Your task to perform on an android device: check android version Image 0: 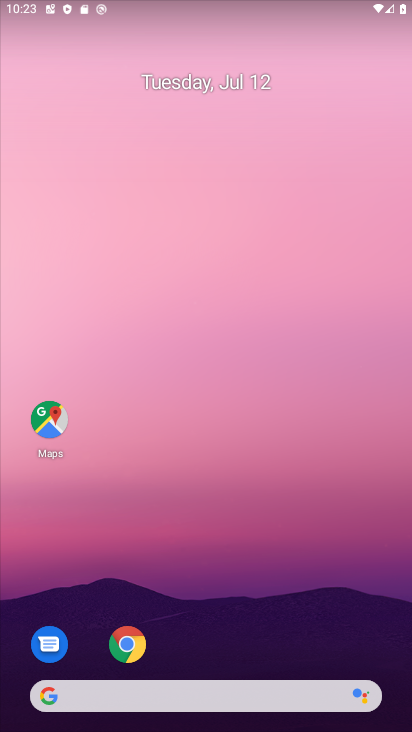
Step 0: drag from (173, 435) to (401, 13)
Your task to perform on an android device: check android version Image 1: 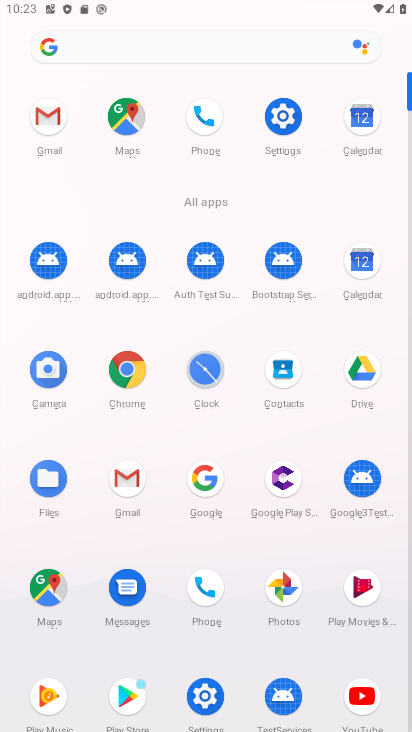
Step 1: click (284, 126)
Your task to perform on an android device: check android version Image 2: 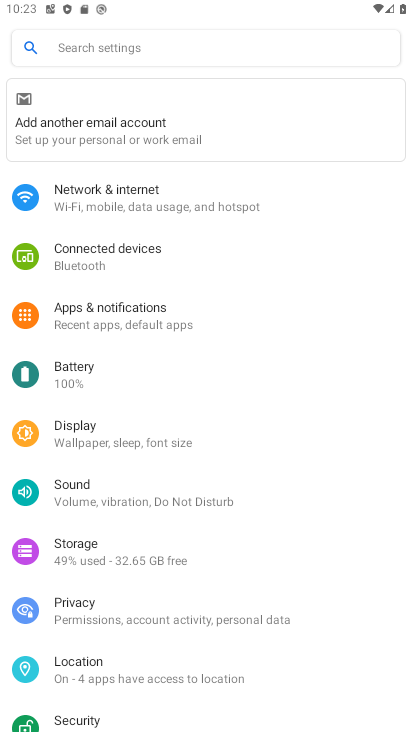
Step 2: drag from (238, 667) to (245, 167)
Your task to perform on an android device: check android version Image 3: 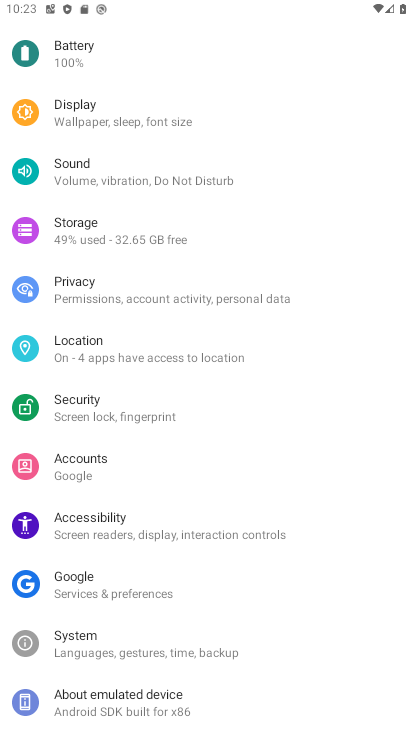
Step 3: drag from (227, 541) to (252, 157)
Your task to perform on an android device: check android version Image 4: 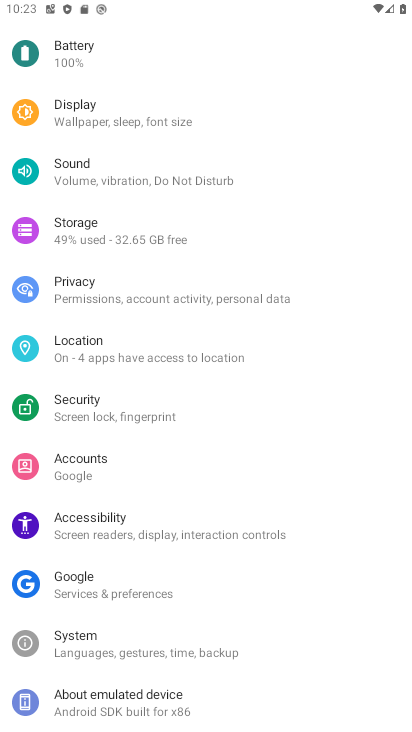
Step 4: click (188, 717)
Your task to perform on an android device: check android version Image 5: 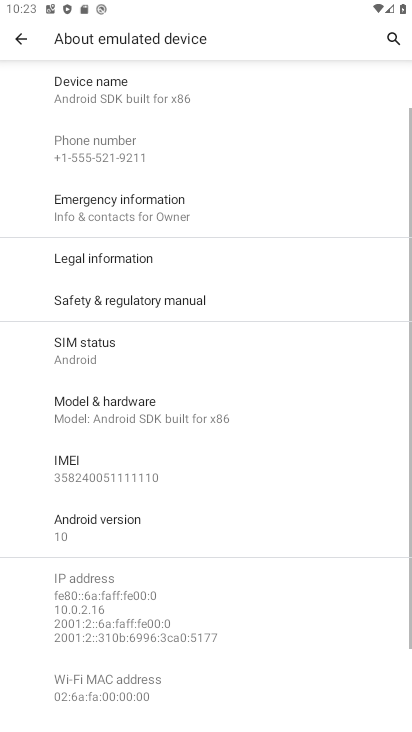
Step 5: task complete